Your task to perform on an android device: turn off location Image 0: 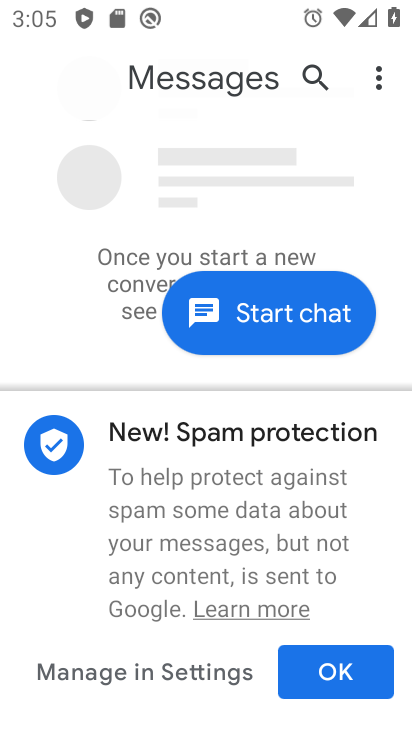
Step 0: press home button
Your task to perform on an android device: turn off location Image 1: 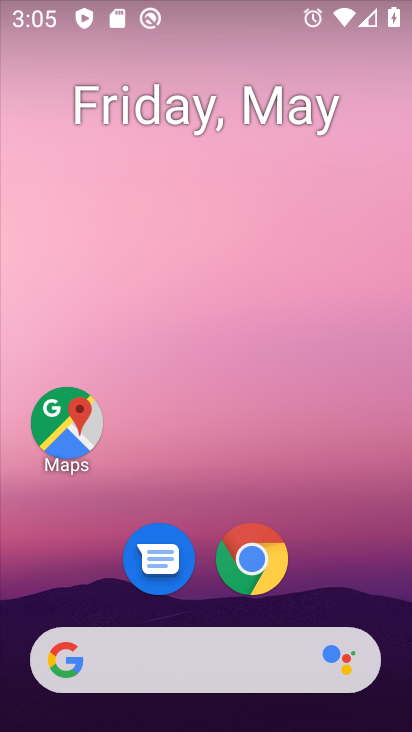
Step 1: drag from (348, 568) to (344, 228)
Your task to perform on an android device: turn off location Image 2: 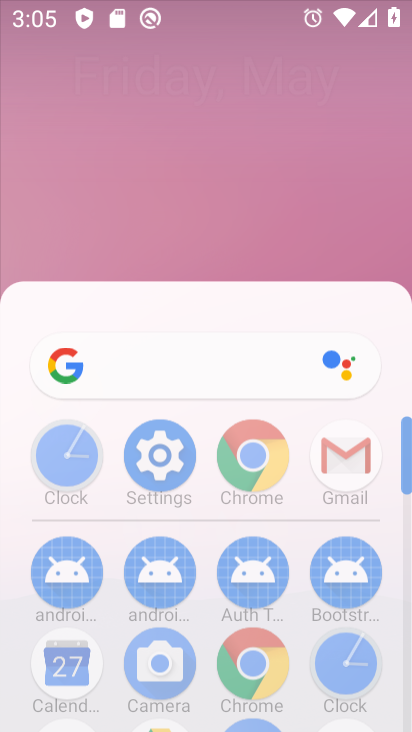
Step 2: click (344, 228)
Your task to perform on an android device: turn off location Image 3: 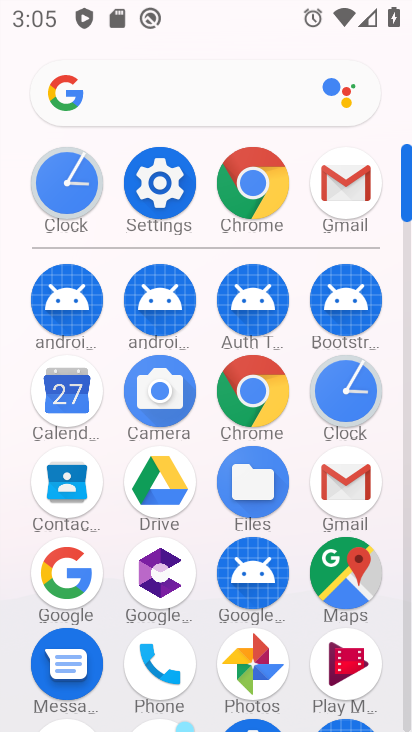
Step 3: click (167, 178)
Your task to perform on an android device: turn off location Image 4: 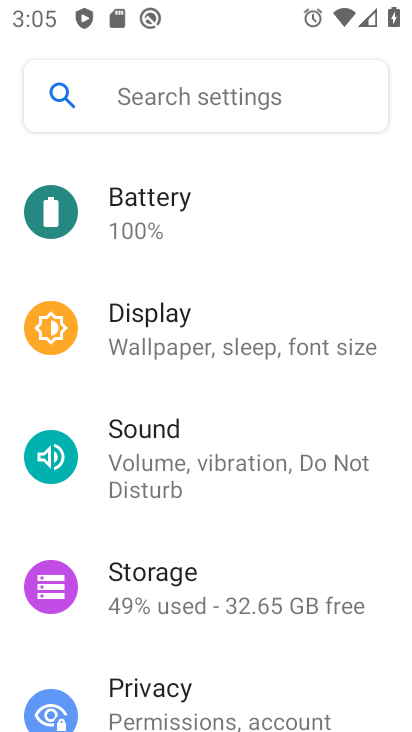
Step 4: drag from (235, 675) to (234, 331)
Your task to perform on an android device: turn off location Image 5: 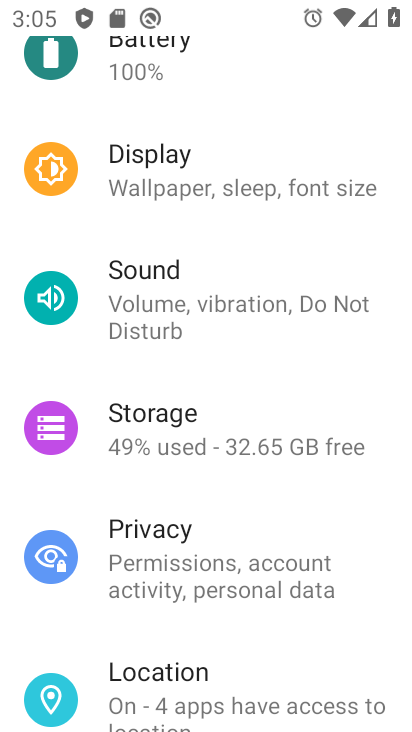
Step 5: click (255, 670)
Your task to perform on an android device: turn off location Image 6: 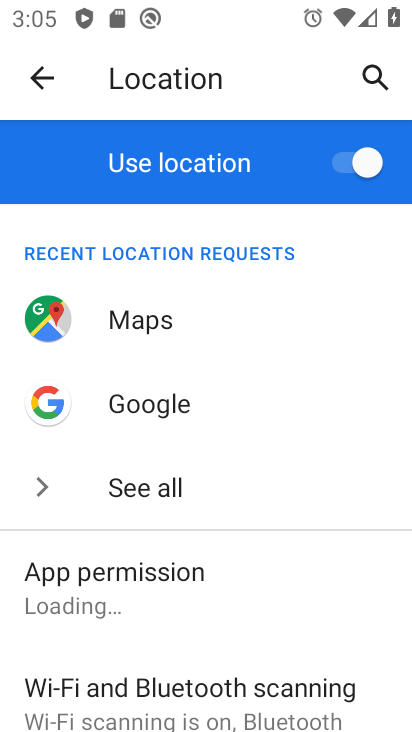
Step 6: drag from (295, 583) to (302, 402)
Your task to perform on an android device: turn off location Image 7: 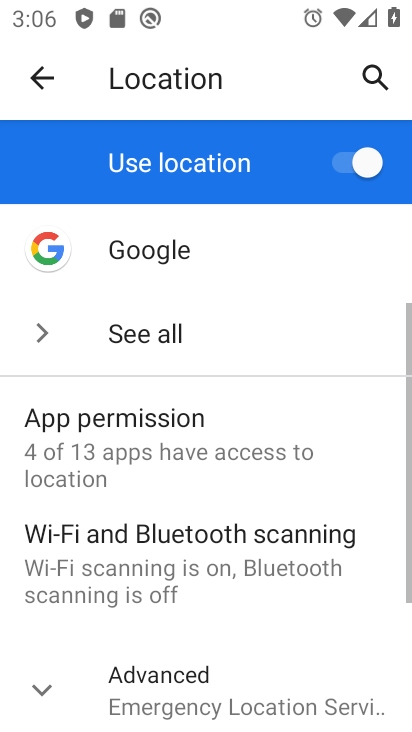
Step 7: click (352, 165)
Your task to perform on an android device: turn off location Image 8: 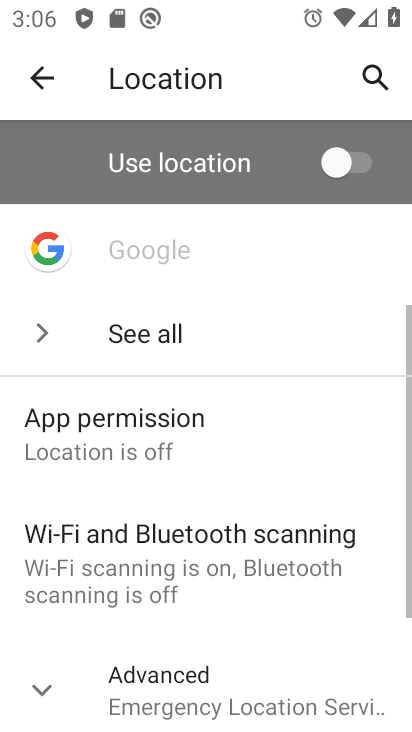
Step 8: task complete